Your task to perform on an android device: Open location settings Image 0: 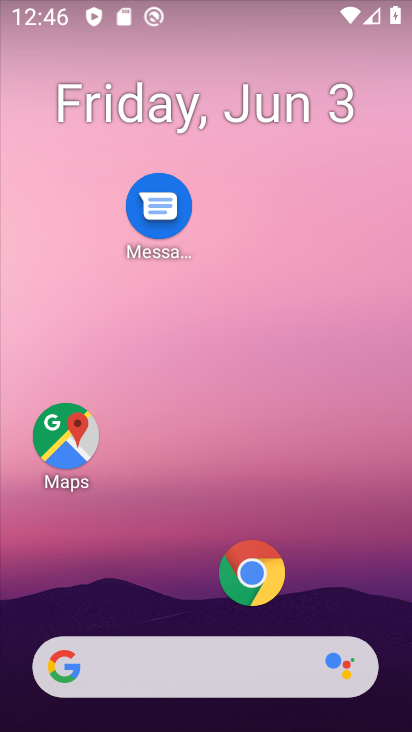
Step 0: drag from (157, 722) to (198, 116)
Your task to perform on an android device: Open location settings Image 1: 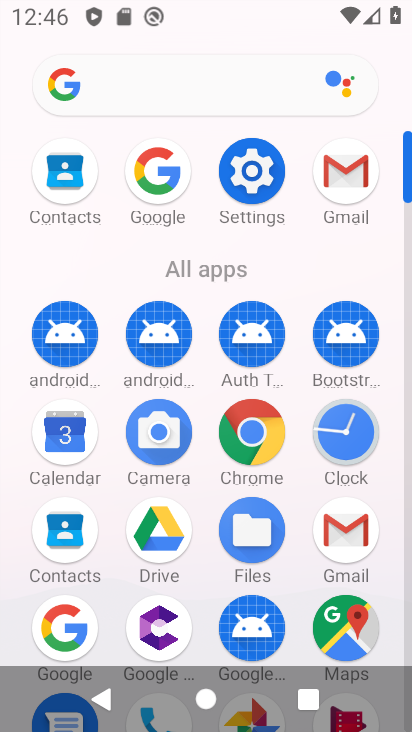
Step 1: click (256, 162)
Your task to perform on an android device: Open location settings Image 2: 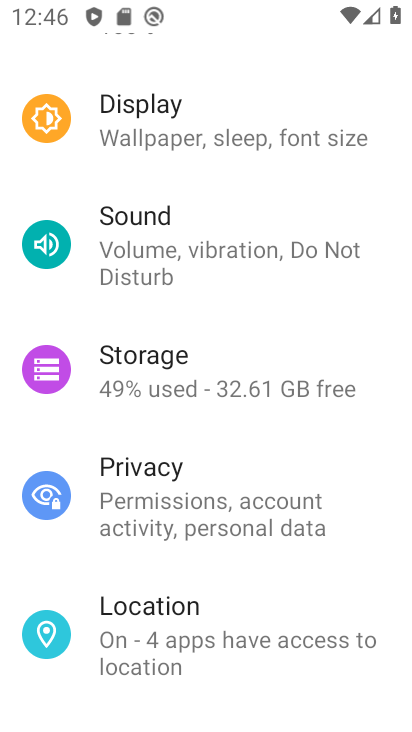
Step 2: click (169, 620)
Your task to perform on an android device: Open location settings Image 3: 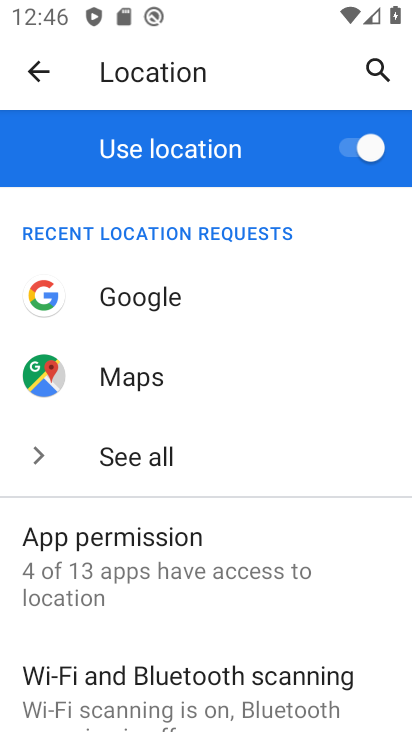
Step 3: task complete